Your task to perform on an android device: Go to calendar. Show me events next week Image 0: 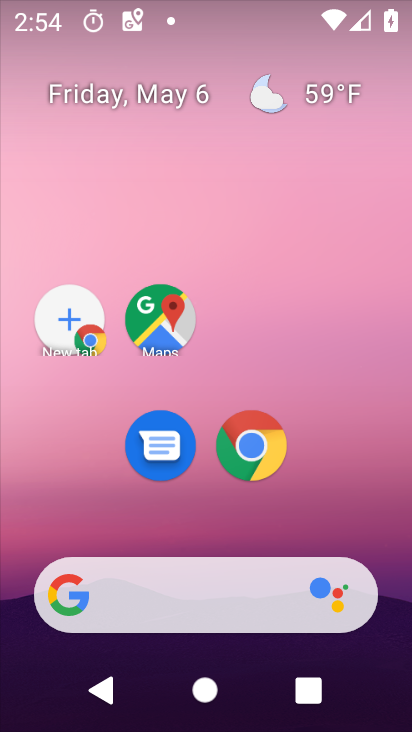
Step 0: click (345, 159)
Your task to perform on an android device: Go to calendar. Show me events next week Image 1: 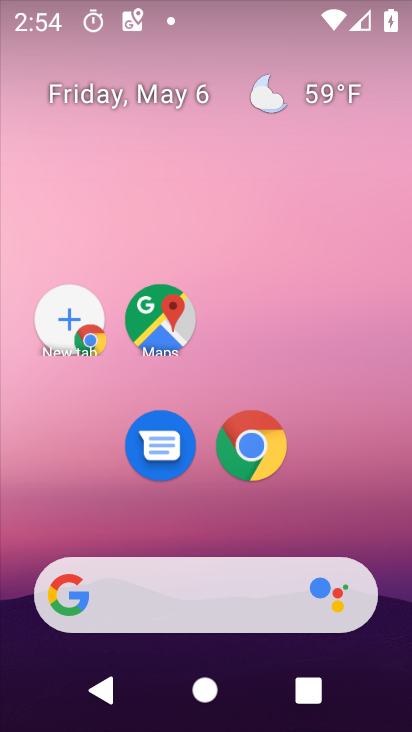
Step 1: drag from (312, 550) to (223, 211)
Your task to perform on an android device: Go to calendar. Show me events next week Image 2: 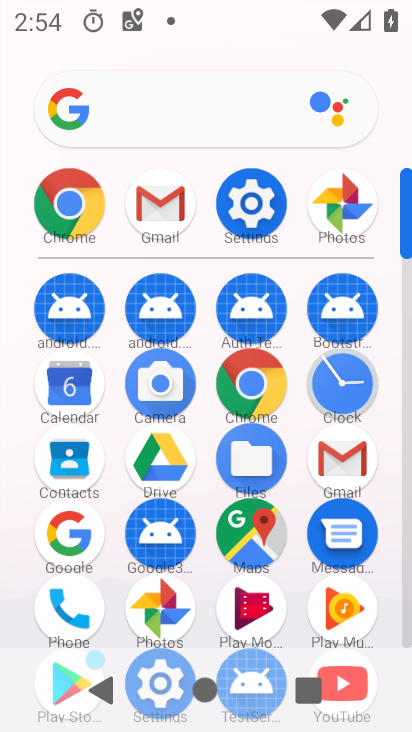
Step 2: drag from (382, 516) to (271, 160)
Your task to perform on an android device: Go to calendar. Show me events next week Image 3: 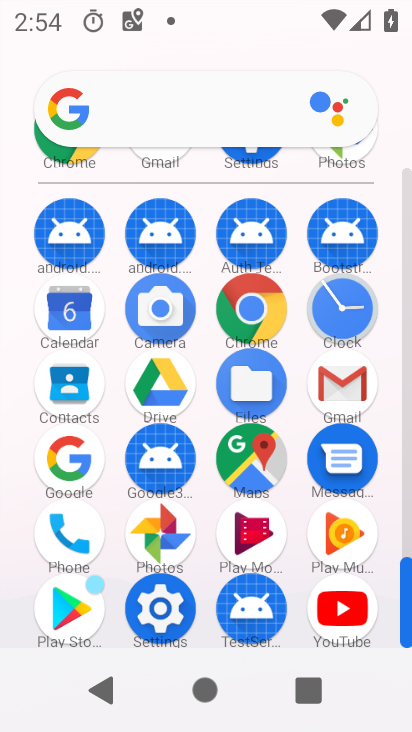
Step 3: click (254, 468)
Your task to perform on an android device: Go to calendar. Show me events next week Image 4: 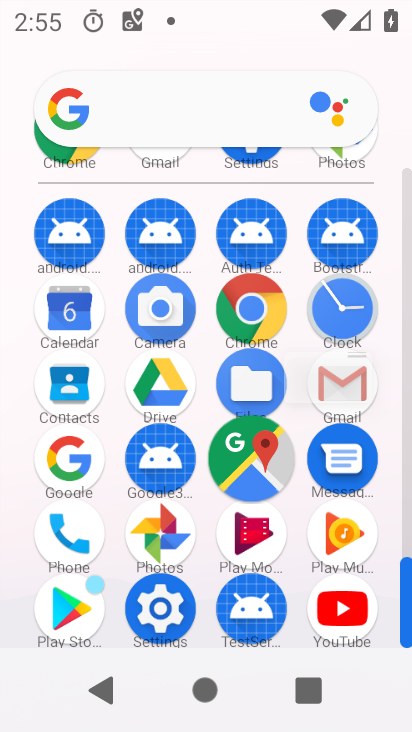
Step 4: click (255, 468)
Your task to perform on an android device: Go to calendar. Show me events next week Image 5: 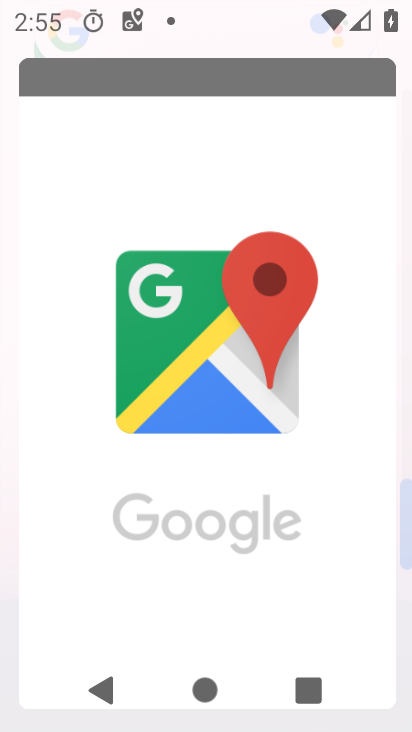
Step 5: click (244, 460)
Your task to perform on an android device: Go to calendar. Show me events next week Image 6: 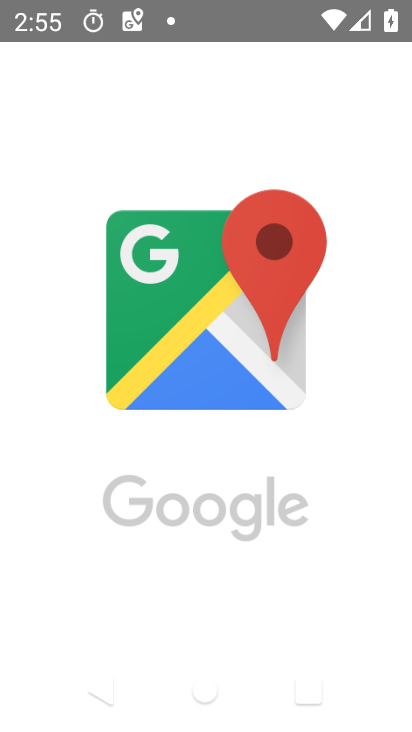
Step 6: click (244, 460)
Your task to perform on an android device: Go to calendar. Show me events next week Image 7: 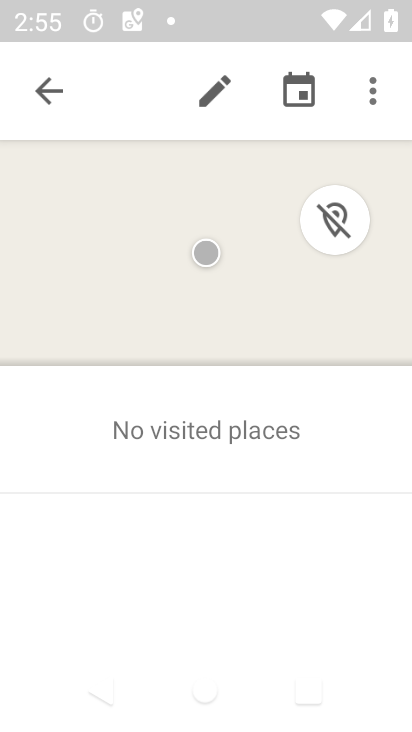
Step 7: press home button
Your task to perform on an android device: Go to calendar. Show me events next week Image 8: 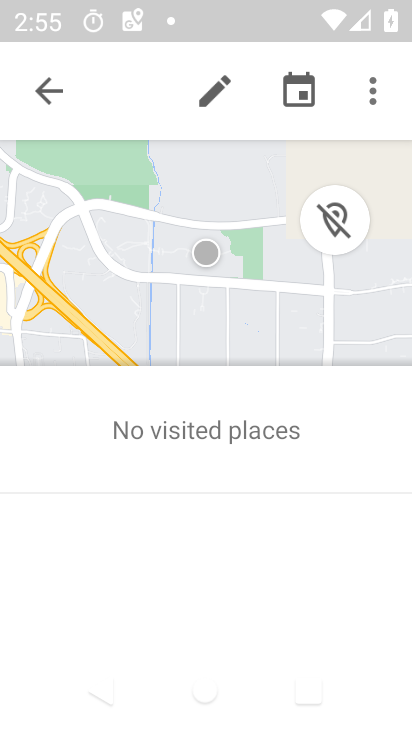
Step 8: click (60, 91)
Your task to perform on an android device: Go to calendar. Show me events next week Image 9: 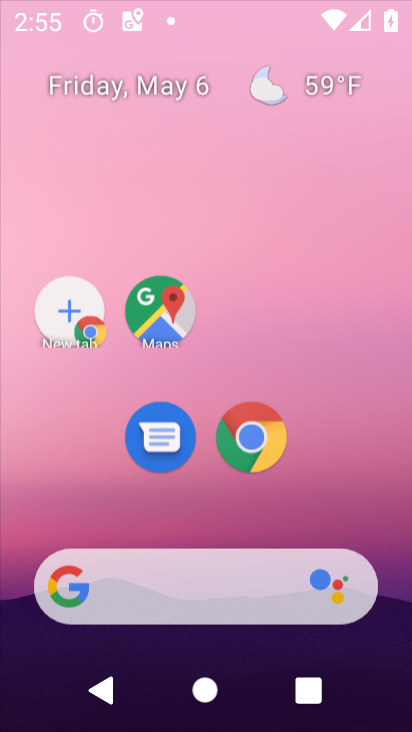
Step 9: click (55, 96)
Your task to perform on an android device: Go to calendar. Show me events next week Image 10: 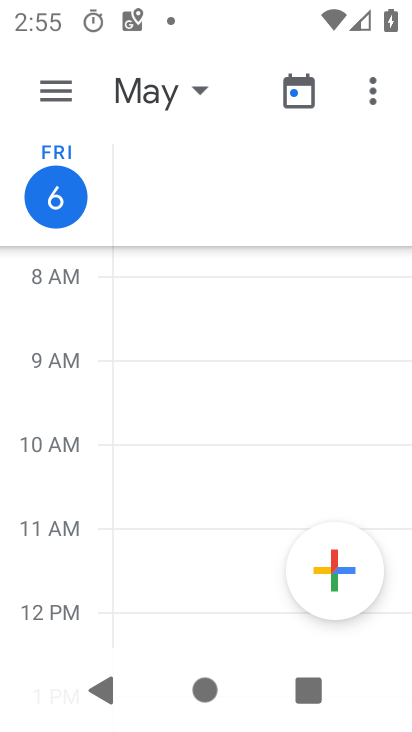
Step 10: drag from (341, 533) to (213, 118)
Your task to perform on an android device: Go to calendar. Show me events next week Image 11: 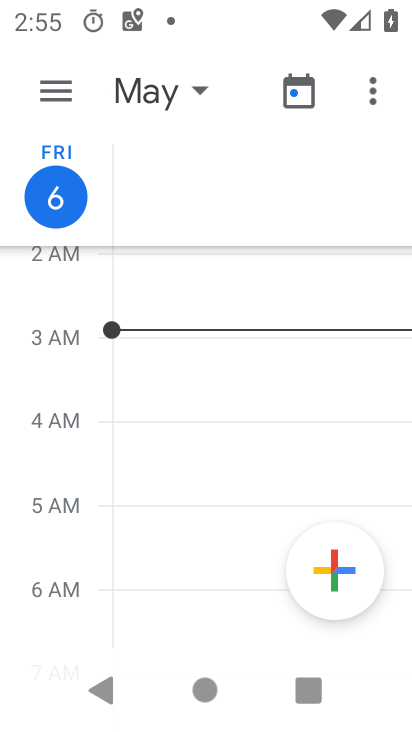
Step 11: click (190, 89)
Your task to perform on an android device: Go to calendar. Show me events next week Image 12: 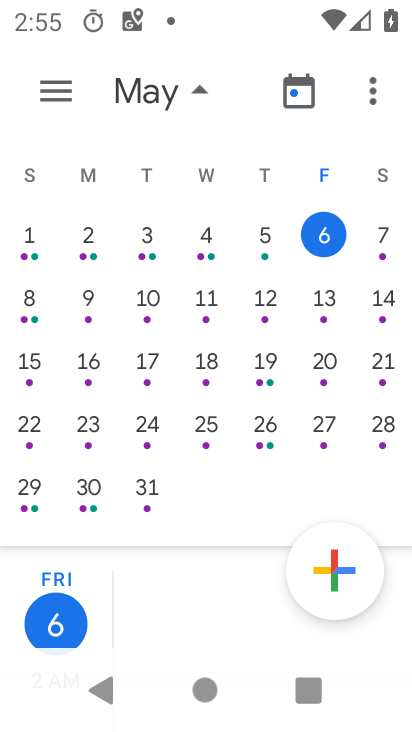
Step 12: drag from (184, 468) to (177, 157)
Your task to perform on an android device: Go to calendar. Show me events next week Image 13: 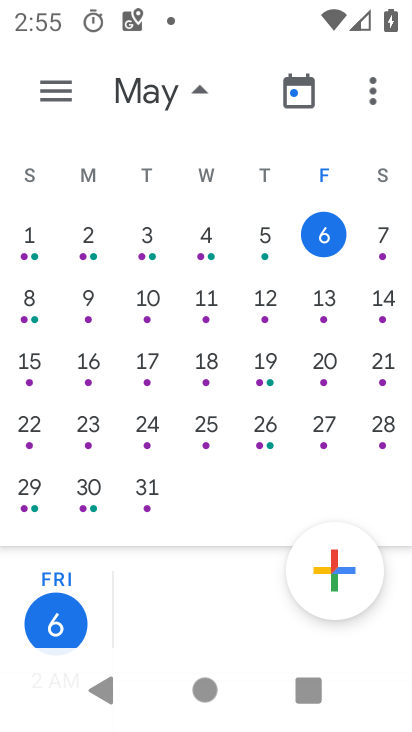
Step 13: drag from (190, 592) to (159, 236)
Your task to perform on an android device: Go to calendar. Show me events next week Image 14: 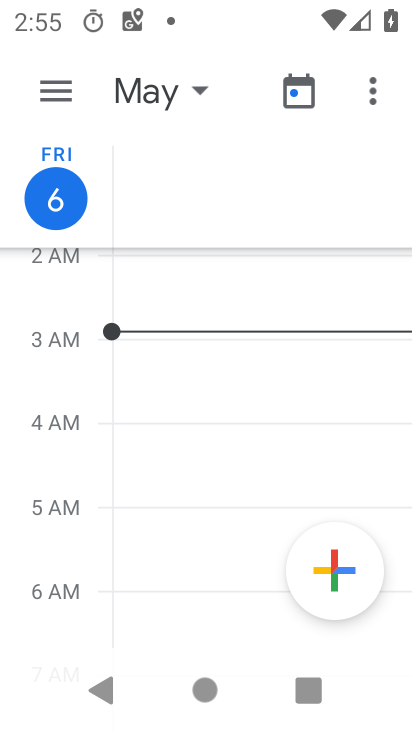
Step 14: drag from (161, 460) to (69, 154)
Your task to perform on an android device: Go to calendar. Show me events next week Image 15: 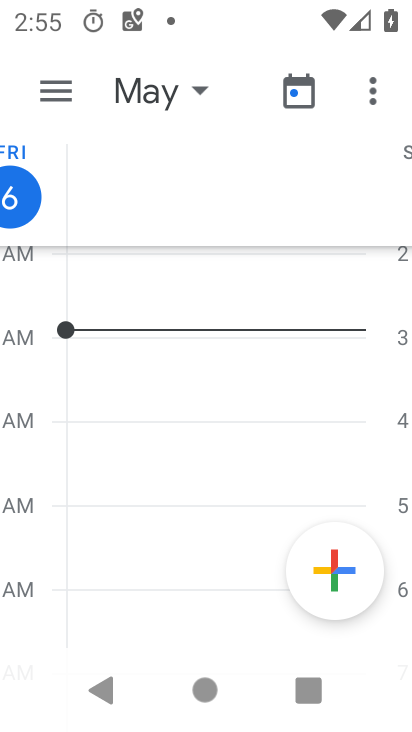
Step 15: drag from (154, 488) to (85, 77)
Your task to perform on an android device: Go to calendar. Show me events next week Image 16: 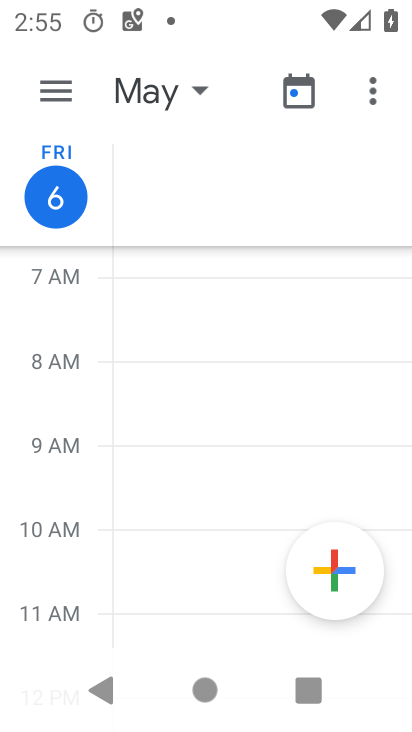
Step 16: drag from (134, 421) to (85, 84)
Your task to perform on an android device: Go to calendar. Show me events next week Image 17: 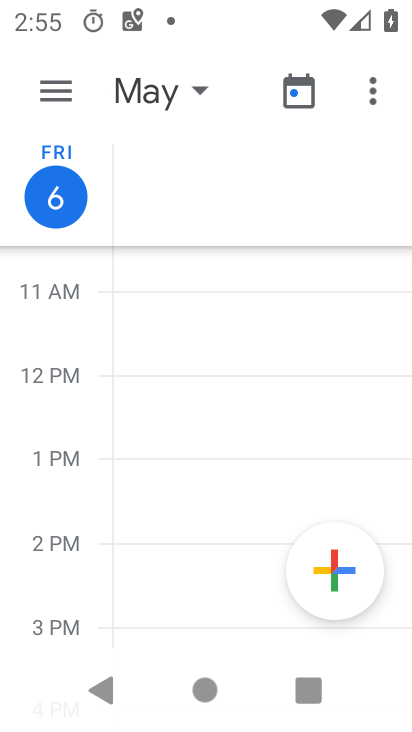
Step 17: drag from (129, 475) to (68, 126)
Your task to perform on an android device: Go to calendar. Show me events next week Image 18: 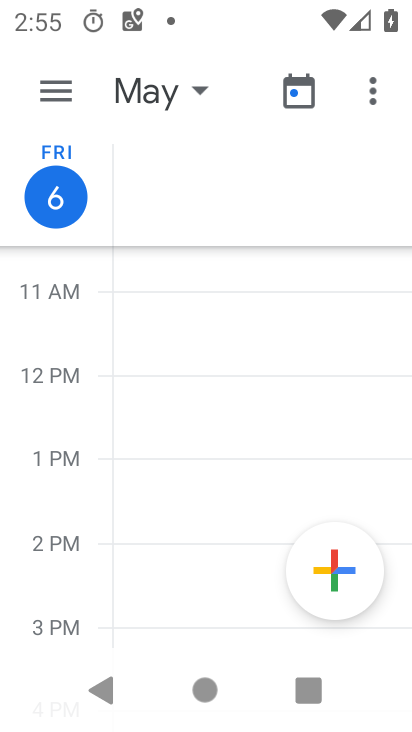
Step 18: drag from (94, 405) to (17, 87)
Your task to perform on an android device: Go to calendar. Show me events next week Image 19: 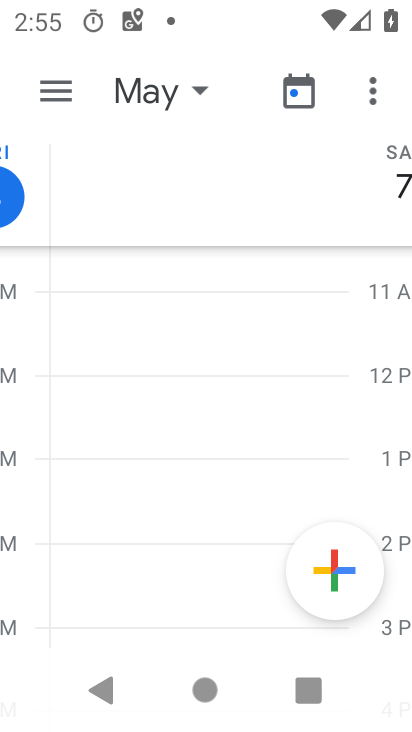
Step 19: drag from (85, 400) to (45, 95)
Your task to perform on an android device: Go to calendar. Show me events next week Image 20: 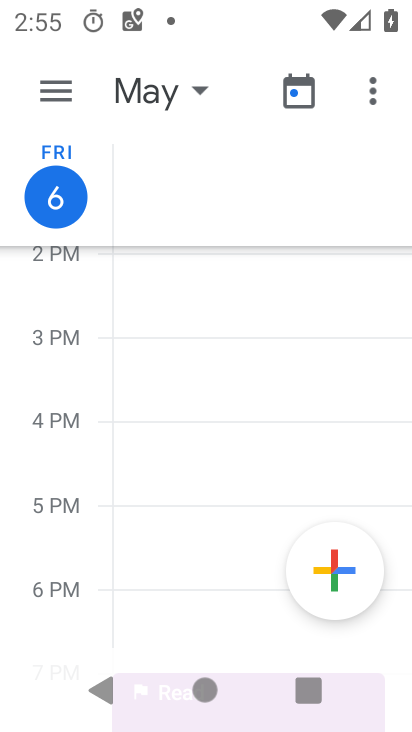
Step 20: click (202, 92)
Your task to perform on an android device: Go to calendar. Show me events next week Image 21: 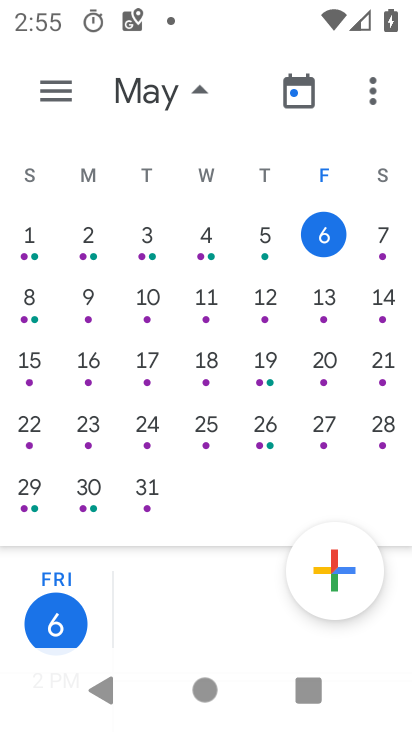
Step 21: task complete